Your task to perform on an android device: Open settings on Google Maps Image 0: 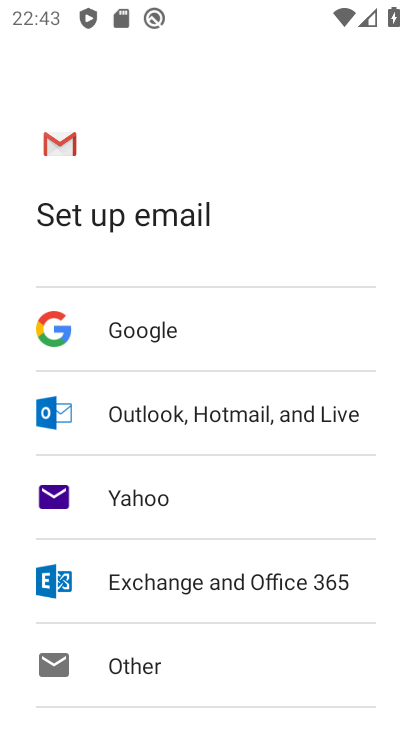
Step 0: press home button
Your task to perform on an android device: Open settings on Google Maps Image 1: 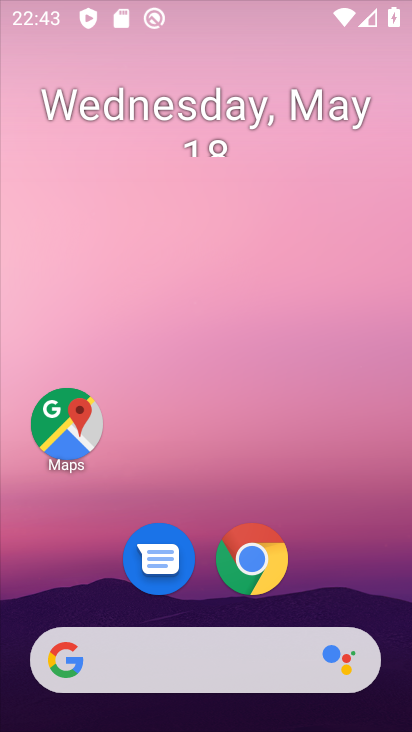
Step 1: click (77, 422)
Your task to perform on an android device: Open settings on Google Maps Image 2: 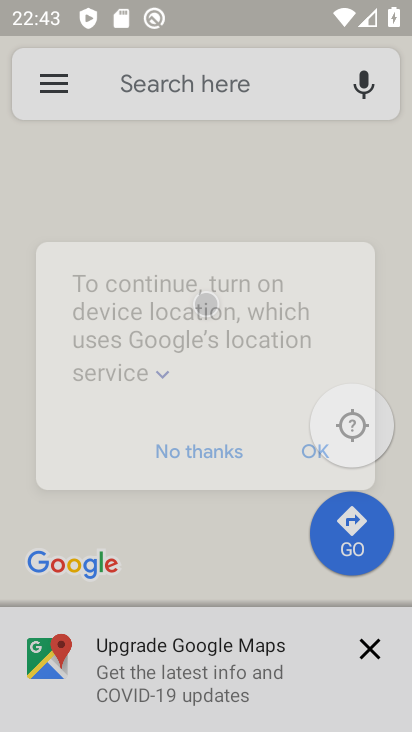
Step 2: click (58, 94)
Your task to perform on an android device: Open settings on Google Maps Image 3: 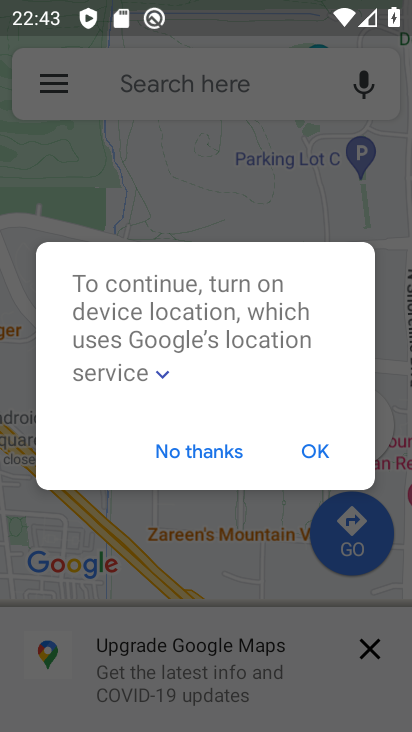
Step 3: click (212, 439)
Your task to perform on an android device: Open settings on Google Maps Image 4: 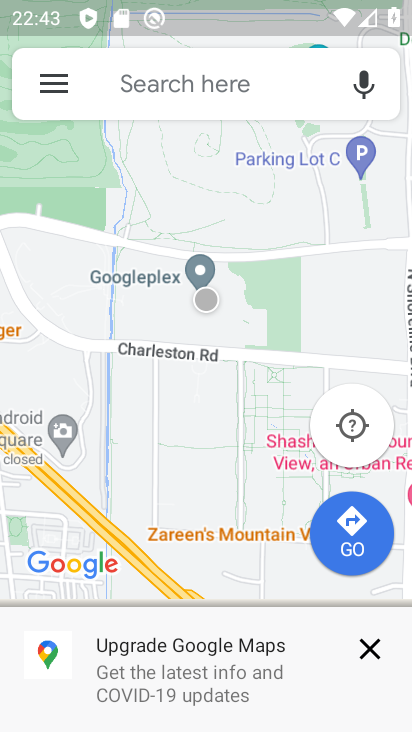
Step 4: click (61, 86)
Your task to perform on an android device: Open settings on Google Maps Image 5: 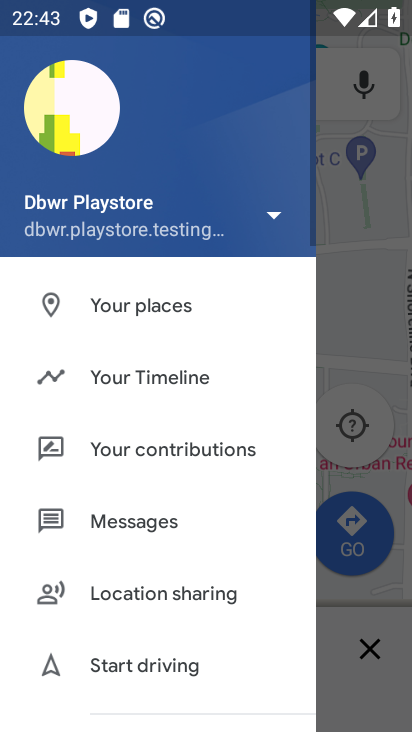
Step 5: drag from (119, 635) to (146, 216)
Your task to perform on an android device: Open settings on Google Maps Image 6: 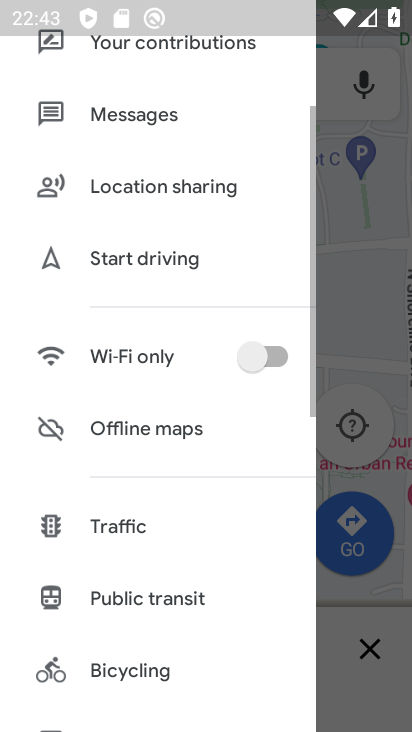
Step 6: drag from (128, 629) to (132, 242)
Your task to perform on an android device: Open settings on Google Maps Image 7: 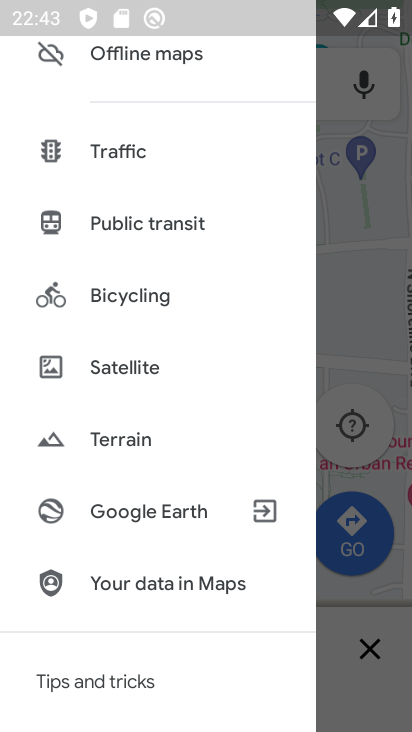
Step 7: drag from (145, 640) to (121, 272)
Your task to perform on an android device: Open settings on Google Maps Image 8: 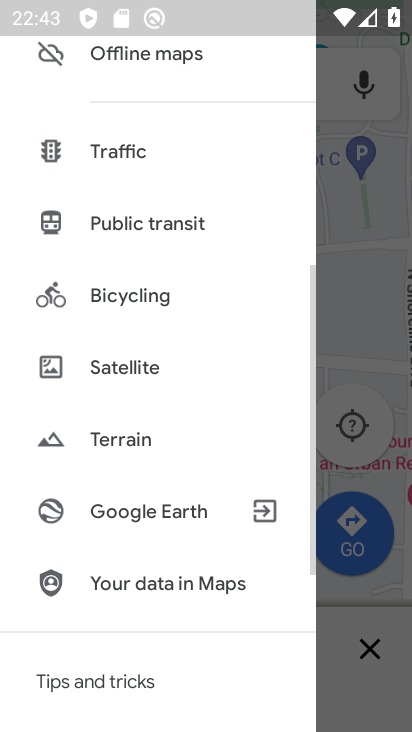
Step 8: drag from (130, 559) to (135, 289)
Your task to perform on an android device: Open settings on Google Maps Image 9: 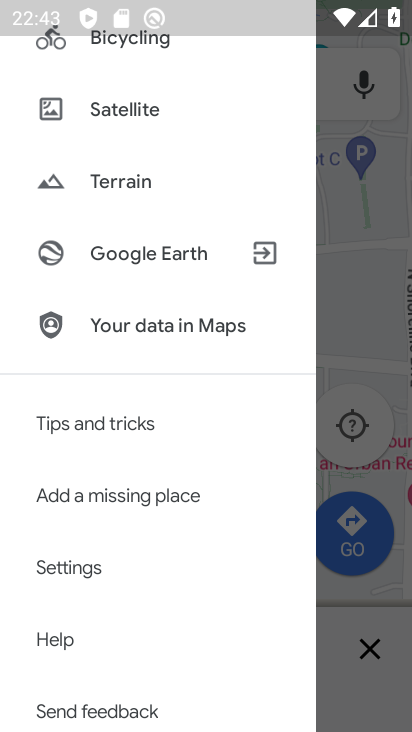
Step 9: click (91, 571)
Your task to perform on an android device: Open settings on Google Maps Image 10: 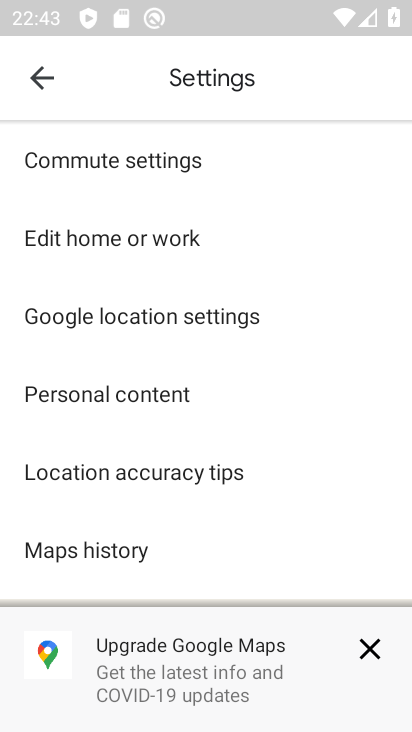
Step 10: task complete